Your task to perform on an android device: Open ESPN.com Image 0: 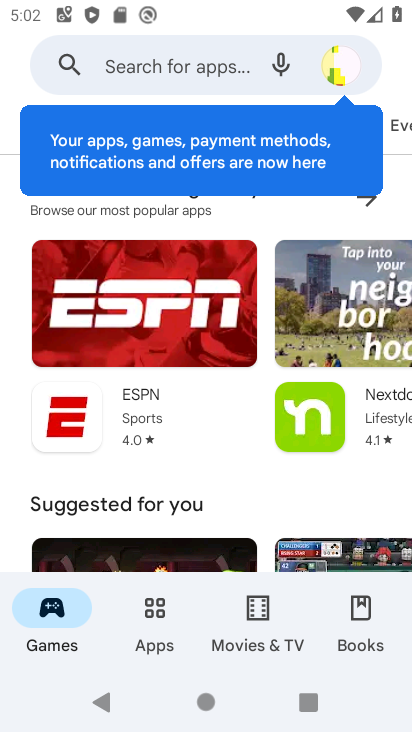
Step 0: press home button
Your task to perform on an android device: Open ESPN.com Image 1: 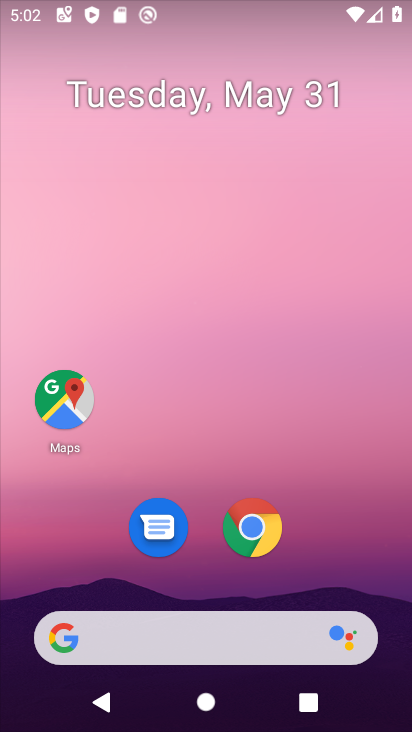
Step 1: drag from (309, 528) to (352, 163)
Your task to perform on an android device: Open ESPN.com Image 2: 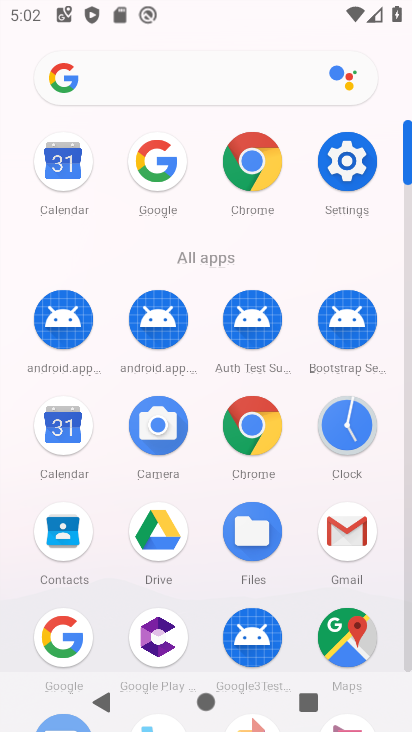
Step 2: click (241, 419)
Your task to perform on an android device: Open ESPN.com Image 3: 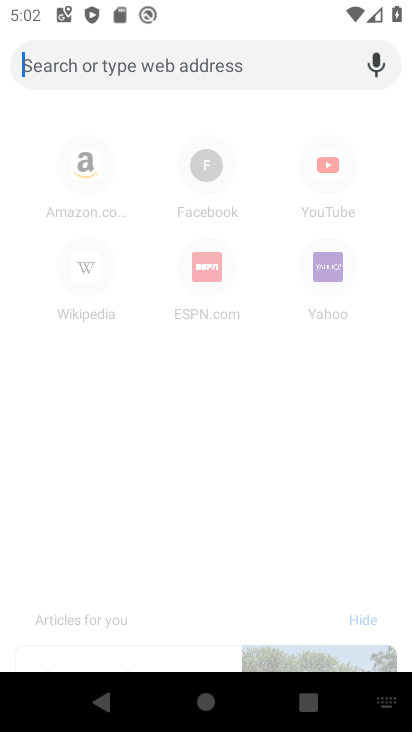
Step 3: type " ESPN.com"
Your task to perform on an android device: Open ESPN.com Image 4: 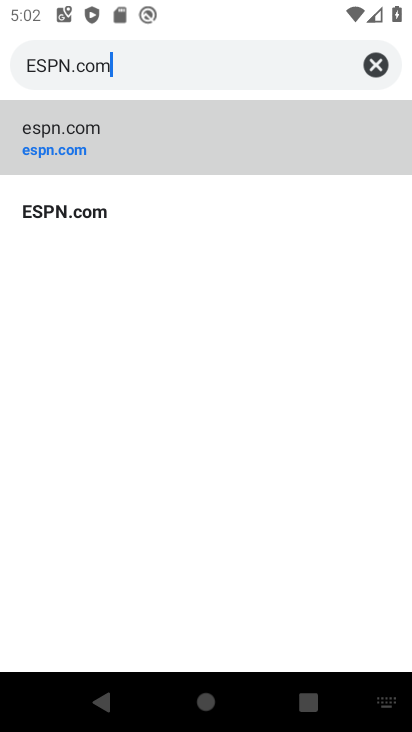
Step 4: click (56, 153)
Your task to perform on an android device: Open ESPN.com Image 5: 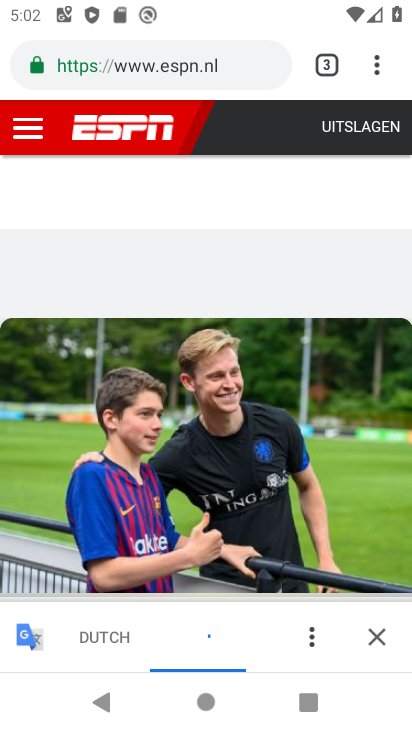
Step 5: task complete